Your task to perform on an android device: Search for vegetarian restaurants on Maps Image 0: 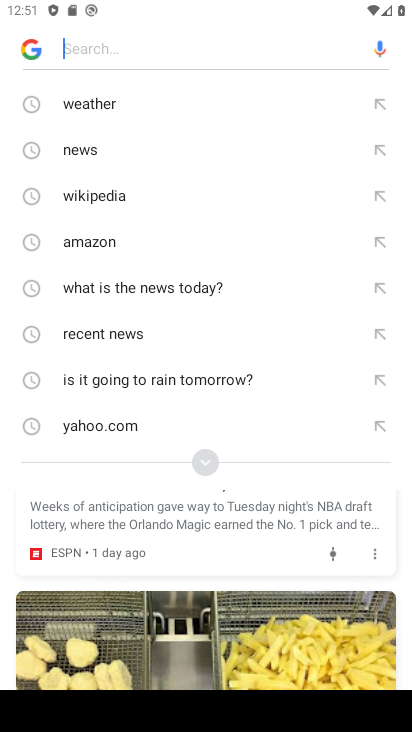
Step 0: press back button
Your task to perform on an android device: Search for vegetarian restaurants on Maps Image 1: 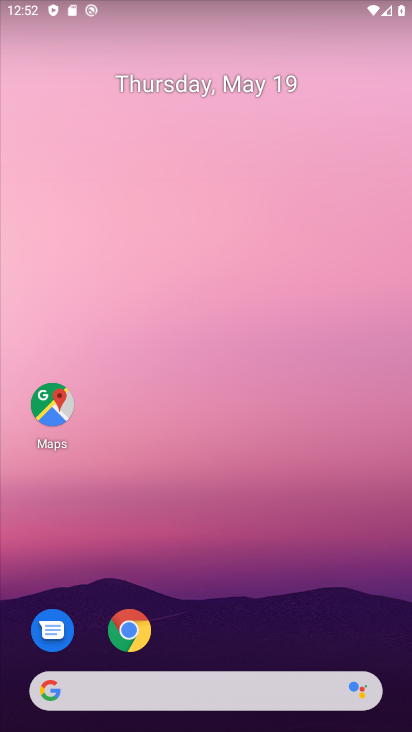
Step 1: click (65, 411)
Your task to perform on an android device: Search for vegetarian restaurants on Maps Image 2: 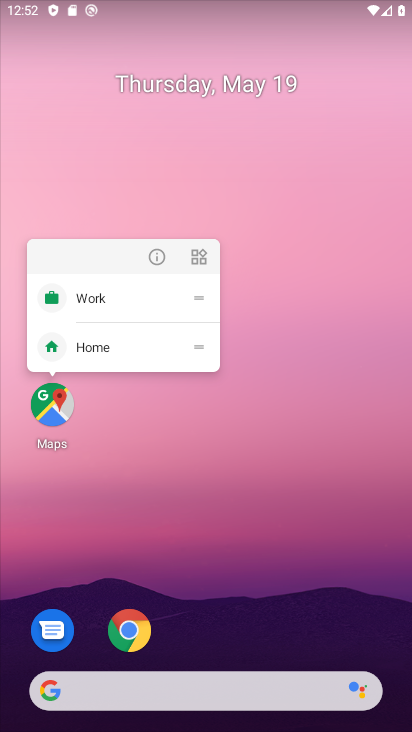
Step 2: click (64, 406)
Your task to perform on an android device: Search for vegetarian restaurants on Maps Image 3: 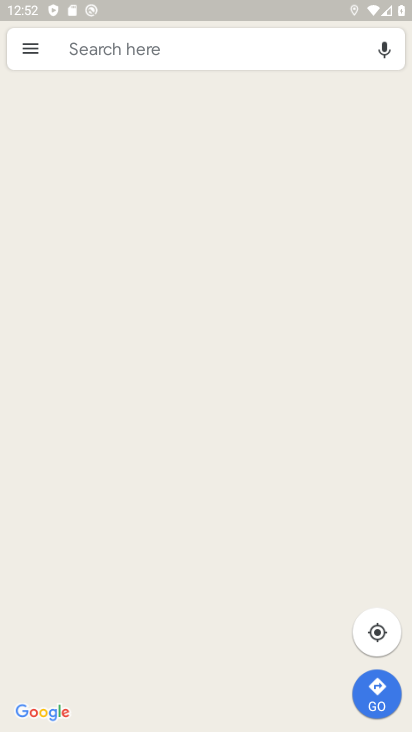
Step 3: click (161, 44)
Your task to perform on an android device: Search for vegetarian restaurants on Maps Image 4: 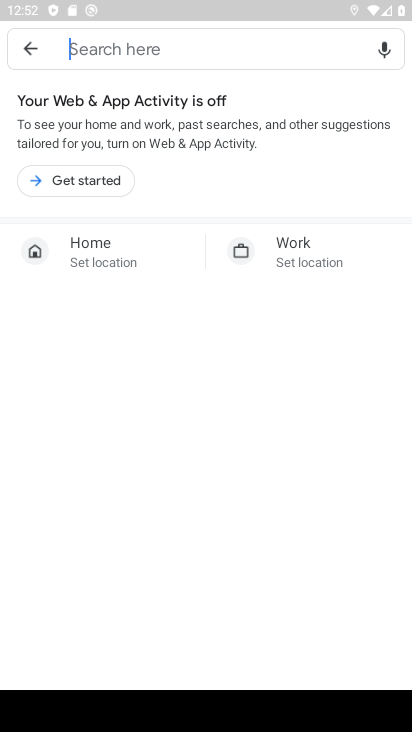
Step 4: click (68, 194)
Your task to perform on an android device: Search for vegetarian restaurants on Maps Image 5: 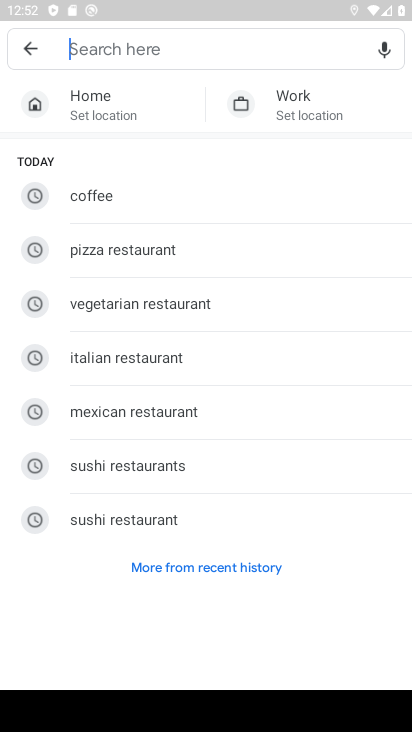
Step 5: click (128, 308)
Your task to perform on an android device: Search for vegetarian restaurants on Maps Image 6: 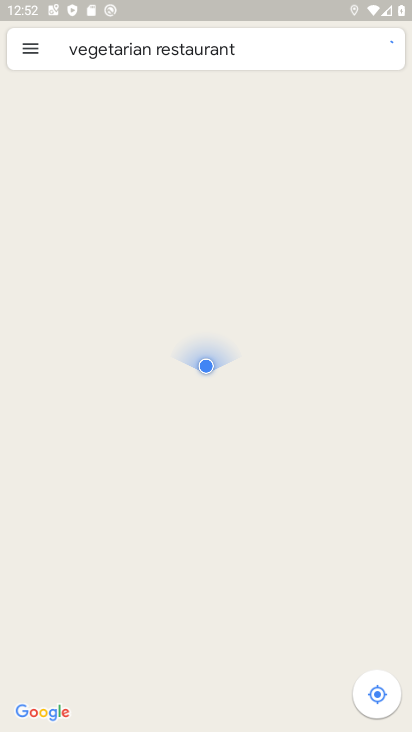
Step 6: task complete